Your task to perform on an android device: See recent photos Image 0: 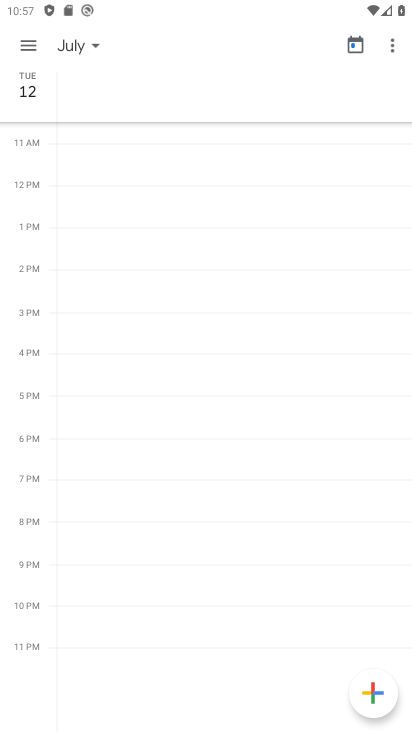
Step 0: press home button
Your task to perform on an android device: See recent photos Image 1: 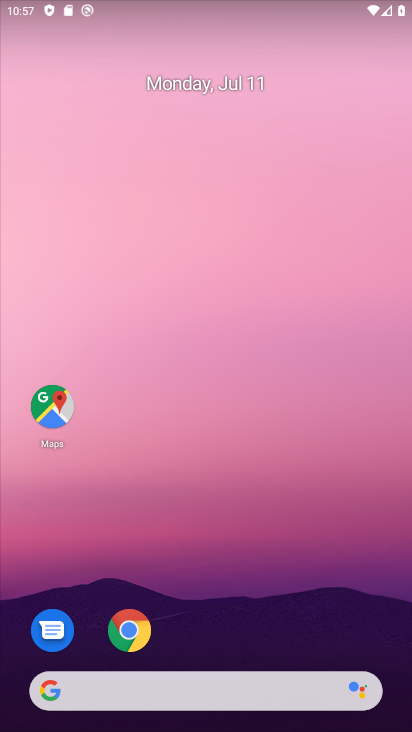
Step 1: drag from (323, 647) to (275, 188)
Your task to perform on an android device: See recent photos Image 2: 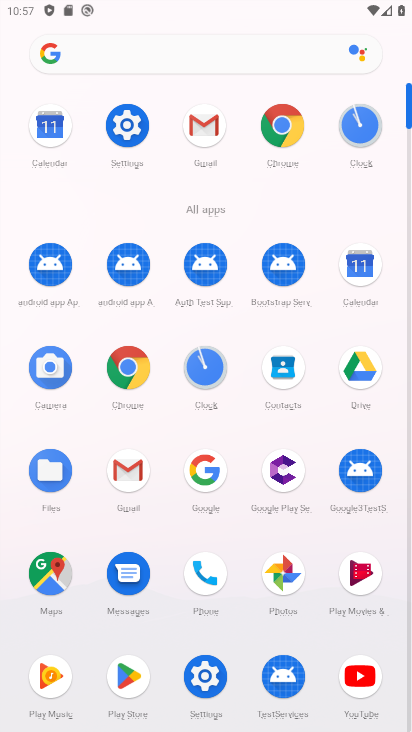
Step 2: click (293, 577)
Your task to perform on an android device: See recent photos Image 3: 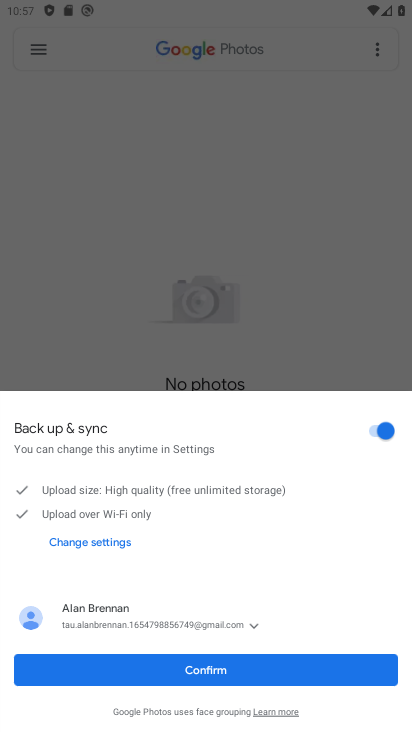
Step 3: click (216, 671)
Your task to perform on an android device: See recent photos Image 4: 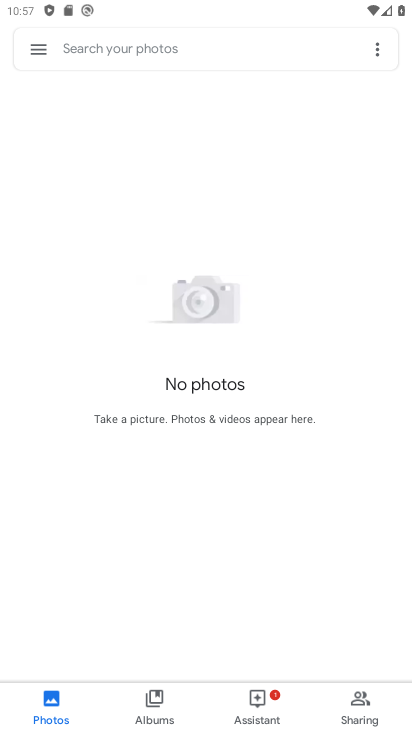
Step 4: task complete